Your task to perform on an android device: Search for "macbook pro 15 inch" on costco, select the first entry, and add it to the cart. Image 0: 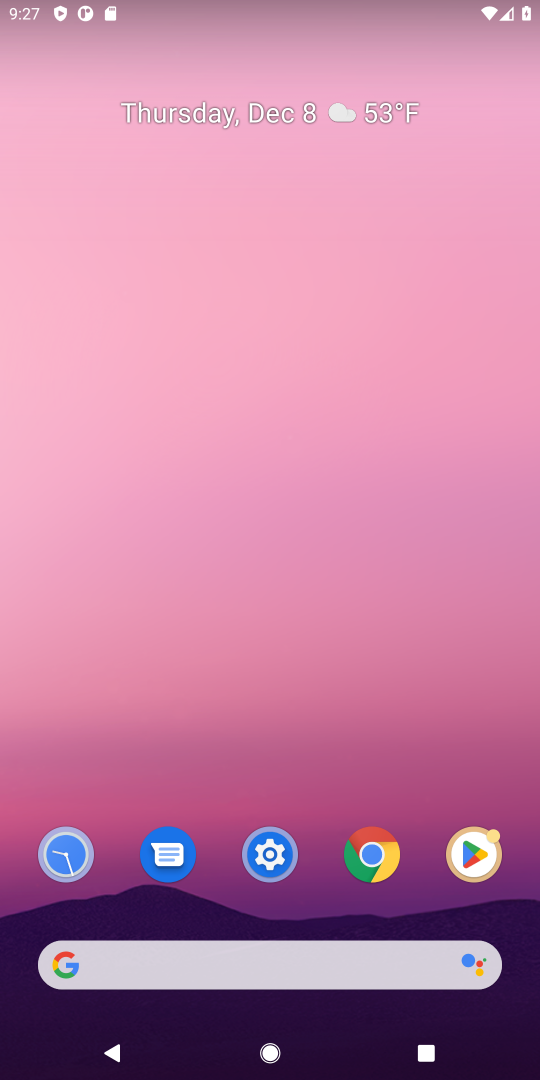
Step 0: press home button
Your task to perform on an android device: Search for "macbook pro 15 inch" on costco, select the first entry, and add it to the cart. Image 1: 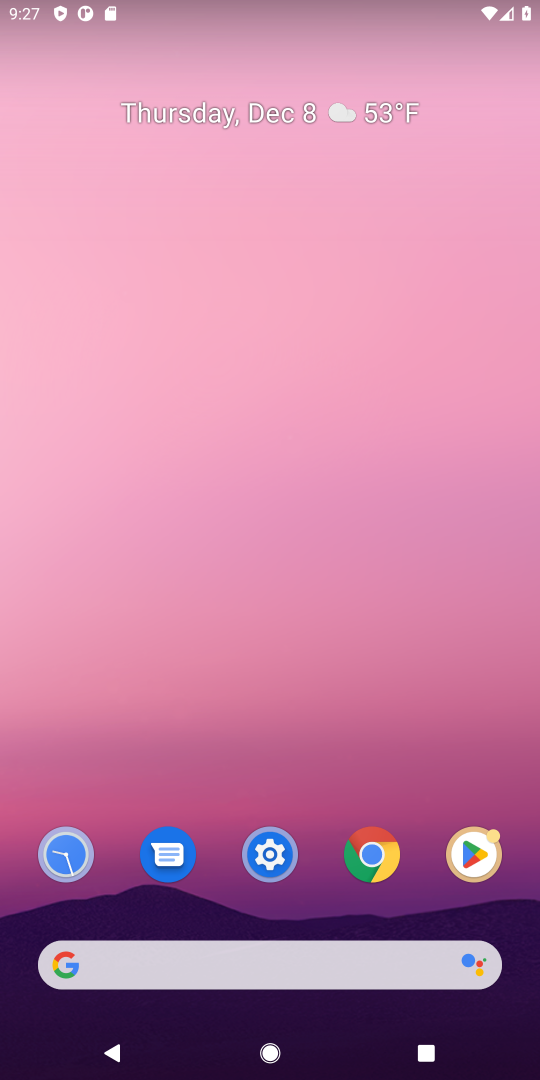
Step 1: click (99, 961)
Your task to perform on an android device: Search for "macbook pro 15 inch" on costco, select the first entry, and add it to the cart. Image 2: 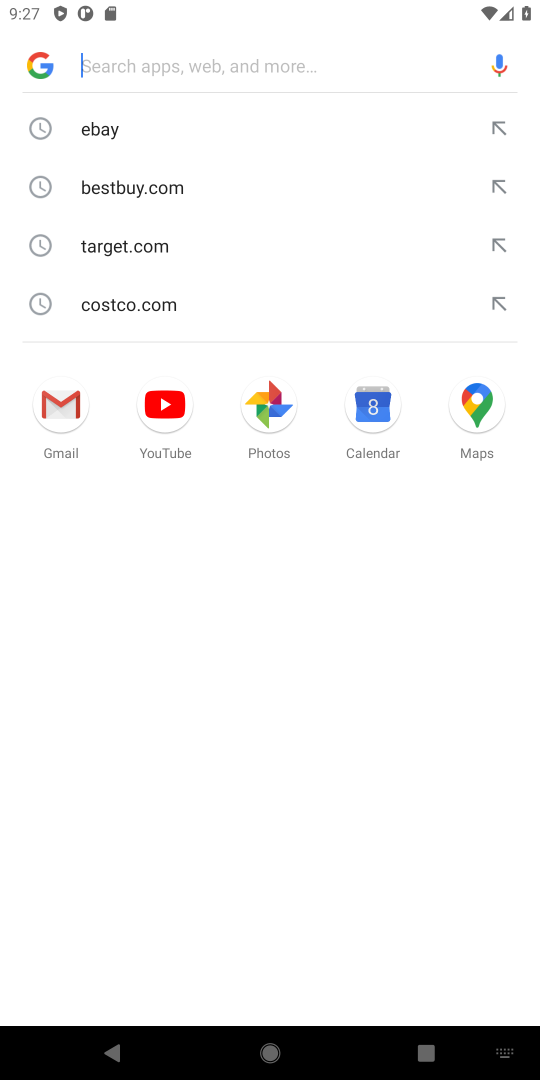
Step 2: type "costco"
Your task to perform on an android device: Search for "macbook pro 15 inch" on costco, select the first entry, and add it to the cart. Image 3: 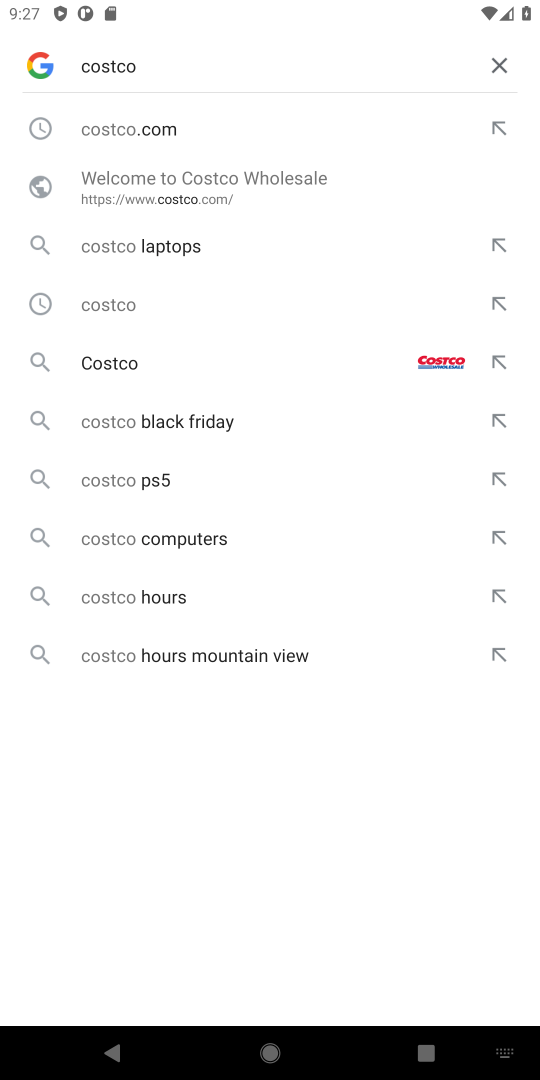
Step 3: press enter
Your task to perform on an android device: Search for "macbook pro 15 inch" on costco, select the first entry, and add it to the cart. Image 4: 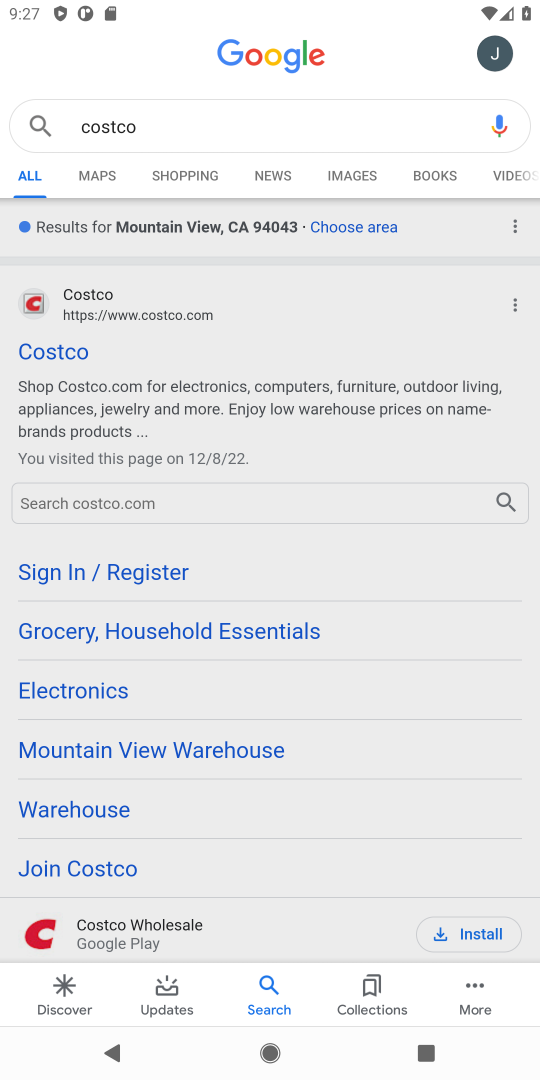
Step 4: click (42, 353)
Your task to perform on an android device: Search for "macbook pro 15 inch" on costco, select the first entry, and add it to the cart. Image 5: 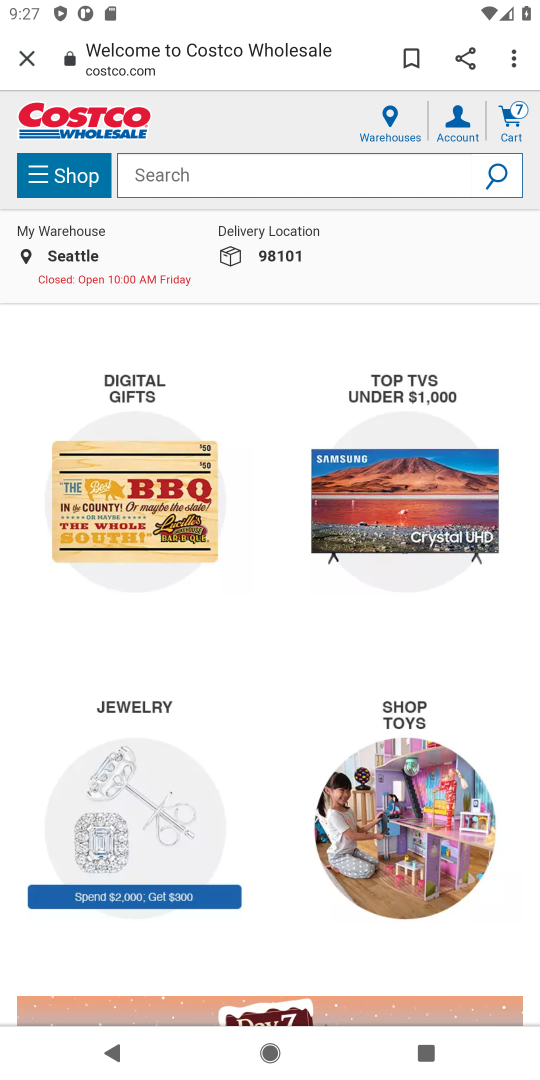
Step 5: click (161, 168)
Your task to perform on an android device: Search for "macbook pro 15 inch" on costco, select the first entry, and add it to the cart. Image 6: 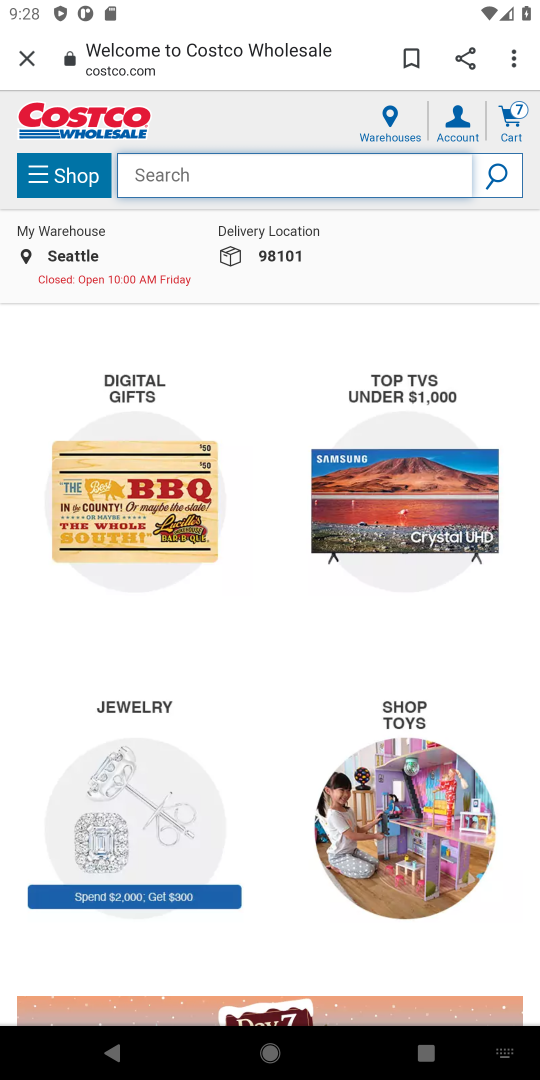
Step 6: type "macbook pro 15 inch"
Your task to perform on an android device: Search for "macbook pro 15 inch" on costco, select the first entry, and add it to the cart. Image 7: 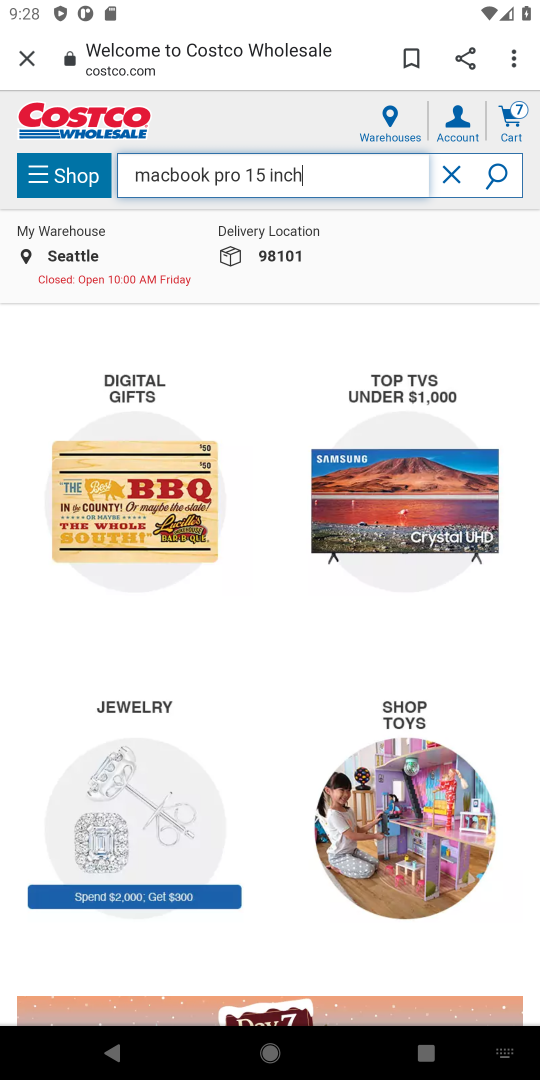
Step 7: press enter
Your task to perform on an android device: Search for "macbook pro 15 inch" on costco, select the first entry, and add it to the cart. Image 8: 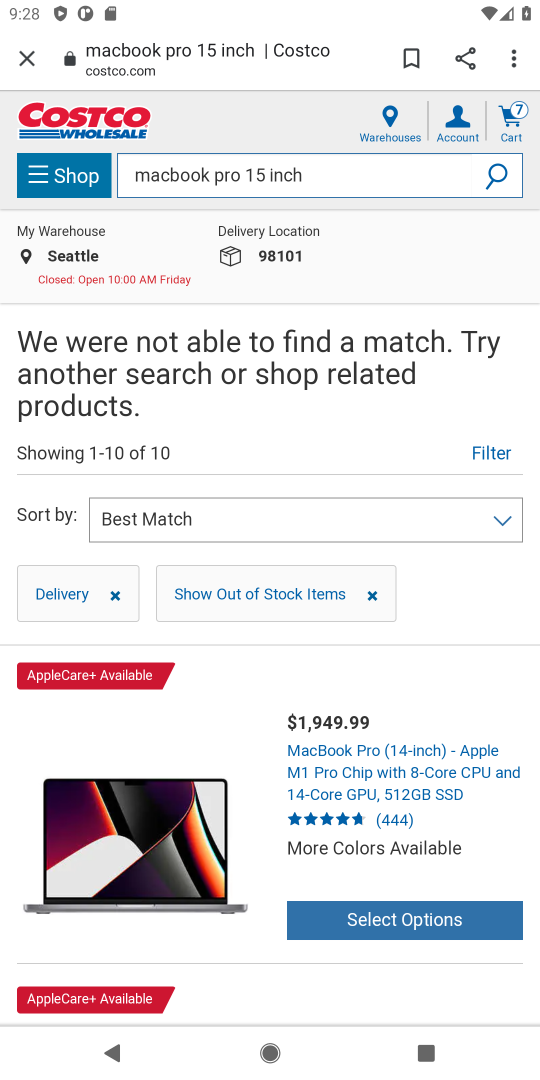
Step 8: task complete